Your task to perform on an android device: change the clock display to digital Image 0: 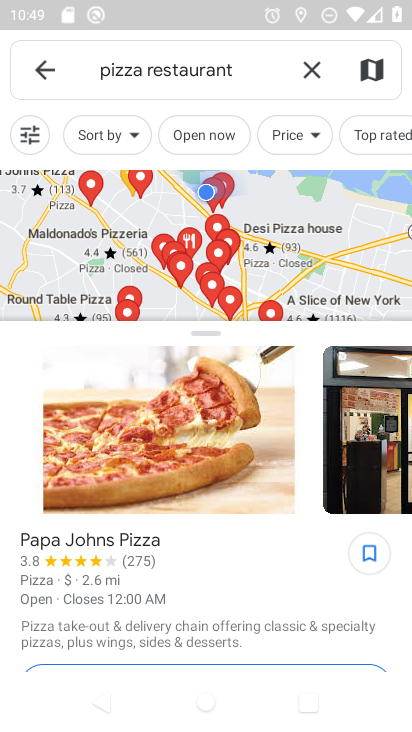
Step 0: press home button
Your task to perform on an android device: change the clock display to digital Image 1: 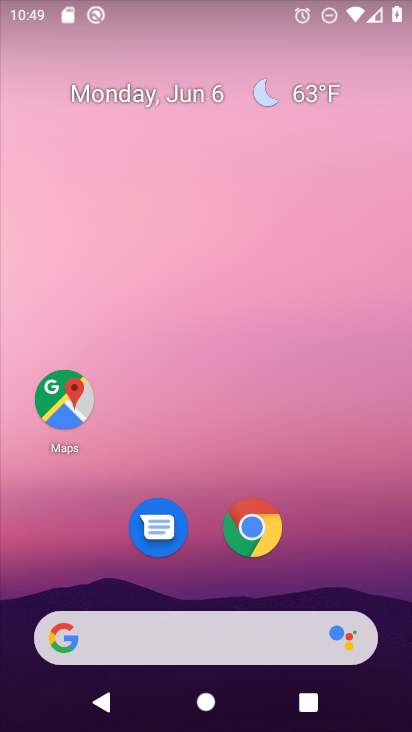
Step 1: drag from (363, 545) to (402, 407)
Your task to perform on an android device: change the clock display to digital Image 2: 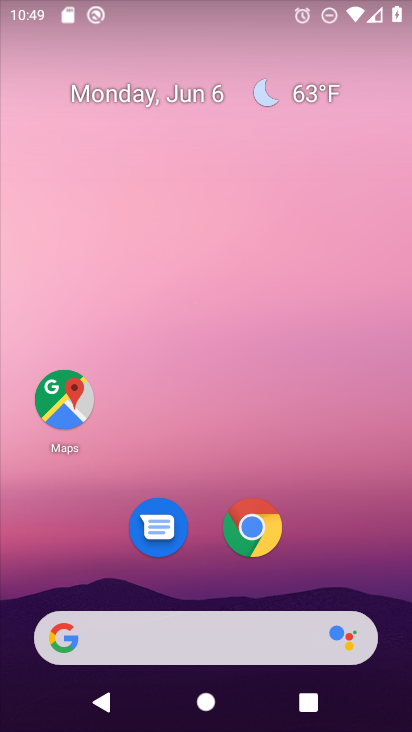
Step 2: drag from (364, 543) to (399, 138)
Your task to perform on an android device: change the clock display to digital Image 3: 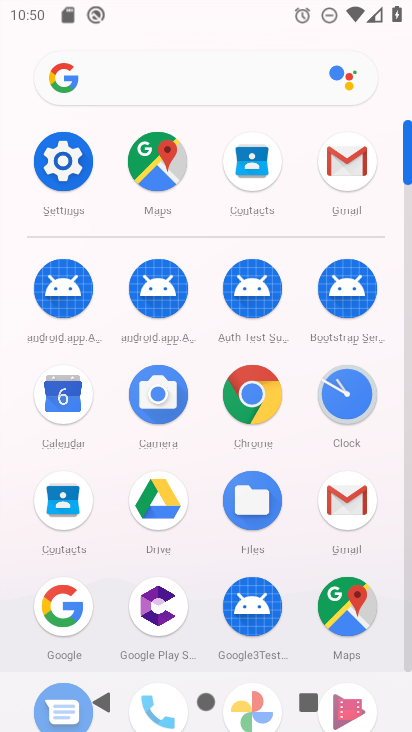
Step 3: click (331, 394)
Your task to perform on an android device: change the clock display to digital Image 4: 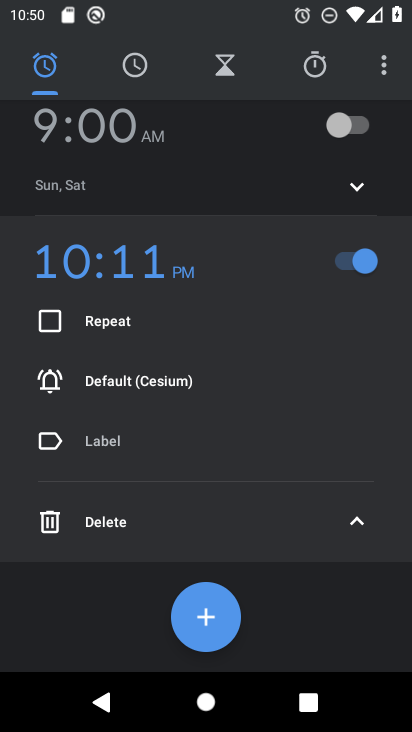
Step 4: click (384, 76)
Your task to perform on an android device: change the clock display to digital Image 5: 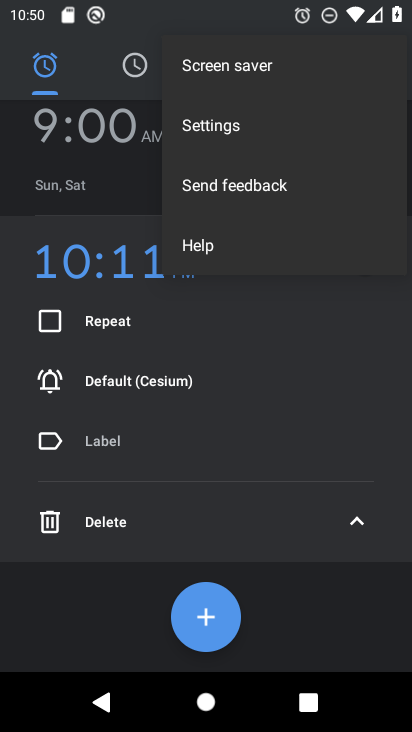
Step 5: click (206, 125)
Your task to perform on an android device: change the clock display to digital Image 6: 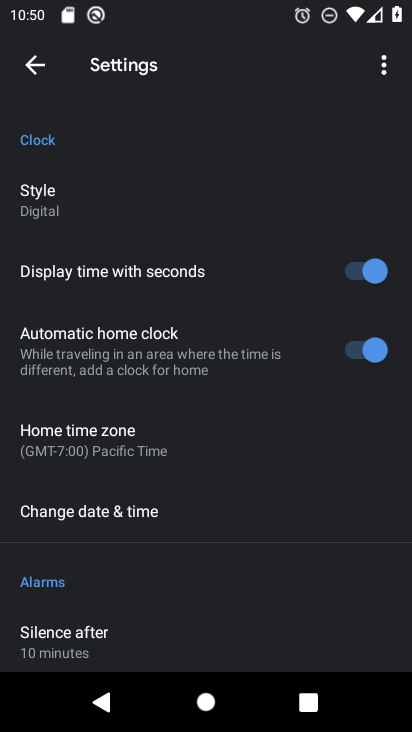
Step 6: task complete